Your task to perform on an android device: turn off data saver in the chrome app Image 0: 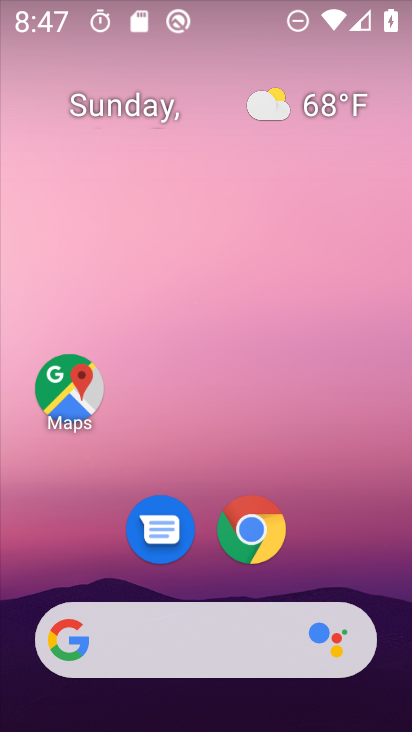
Step 0: click (250, 525)
Your task to perform on an android device: turn off data saver in the chrome app Image 1: 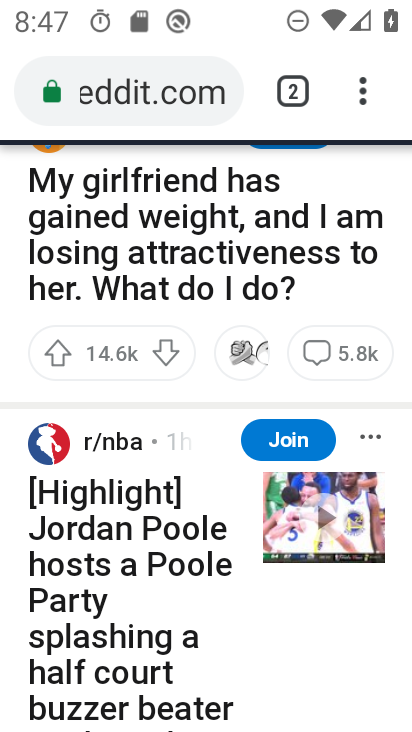
Step 1: click (360, 88)
Your task to perform on an android device: turn off data saver in the chrome app Image 2: 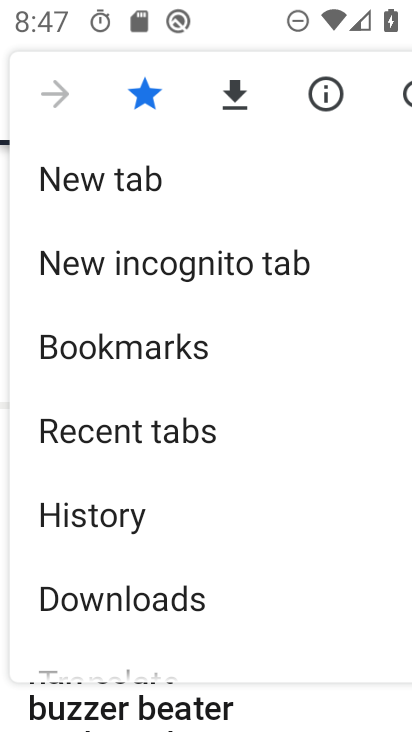
Step 2: drag from (236, 600) to (305, 136)
Your task to perform on an android device: turn off data saver in the chrome app Image 3: 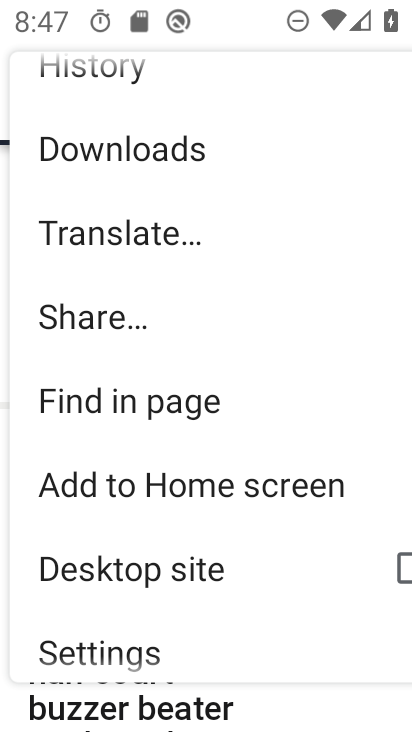
Step 3: click (179, 644)
Your task to perform on an android device: turn off data saver in the chrome app Image 4: 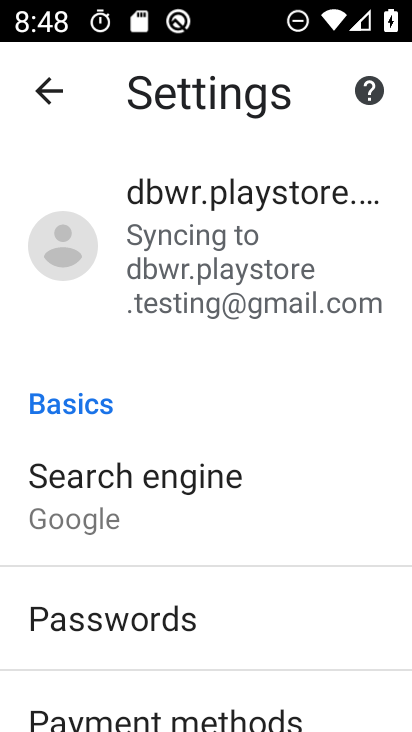
Step 4: drag from (226, 677) to (247, 196)
Your task to perform on an android device: turn off data saver in the chrome app Image 5: 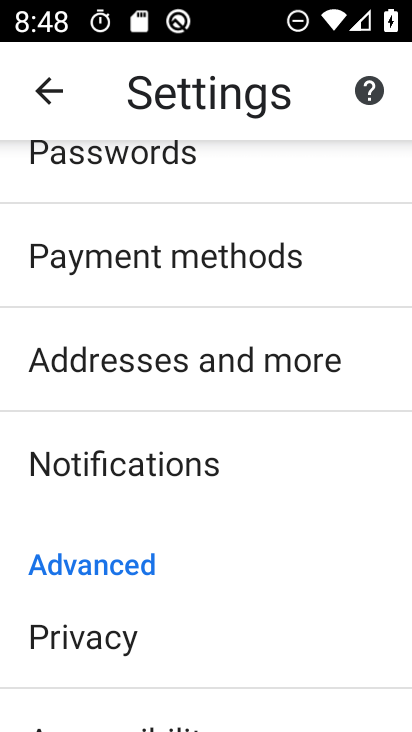
Step 5: drag from (207, 684) to (266, 113)
Your task to perform on an android device: turn off data saver in the chrome app Image 6: 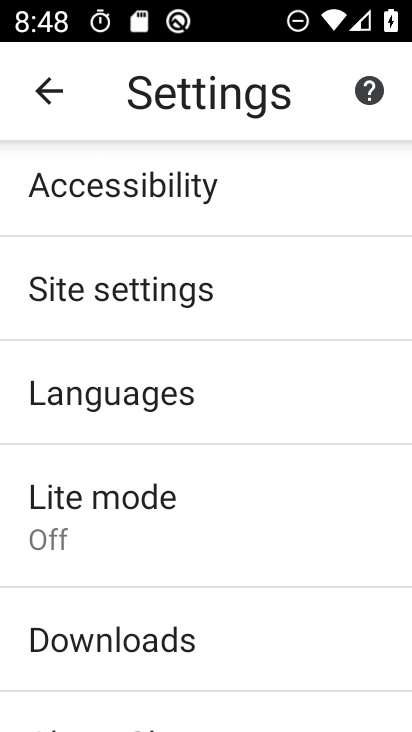
Step 6: click (161, 523)
Your task to perform on an android device: turn off data saver in the chrome app Image 7: 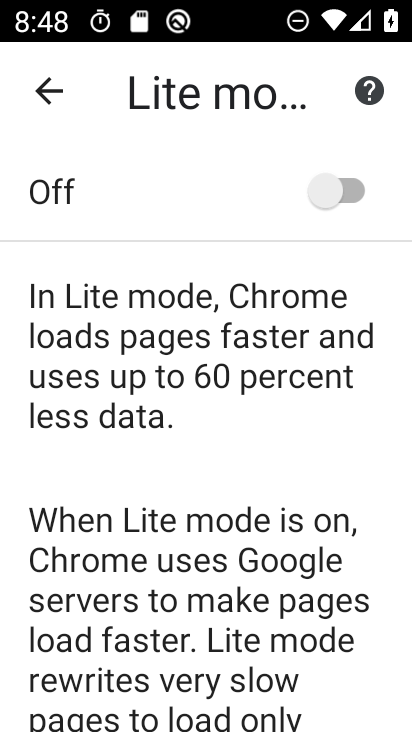
Step 7: task complete